Your task to perform on an android device: Search for vegetarian restaurants on Maps Image 0: 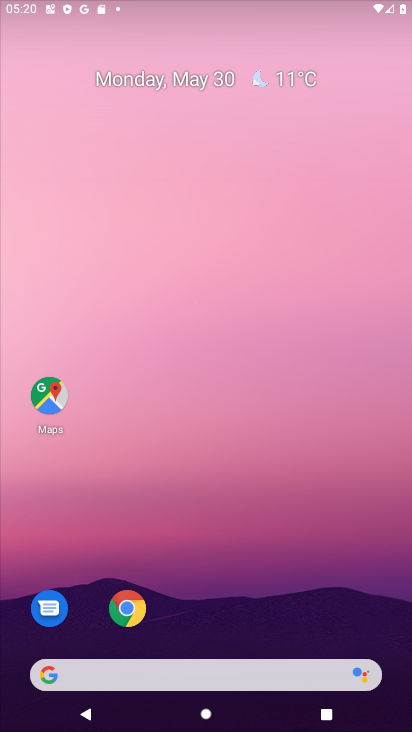
Step 0: drag from (203, 564) to (199, 217)
Your task to perform on an android device: Search for vegetarian restaurants on Maps Image 1: 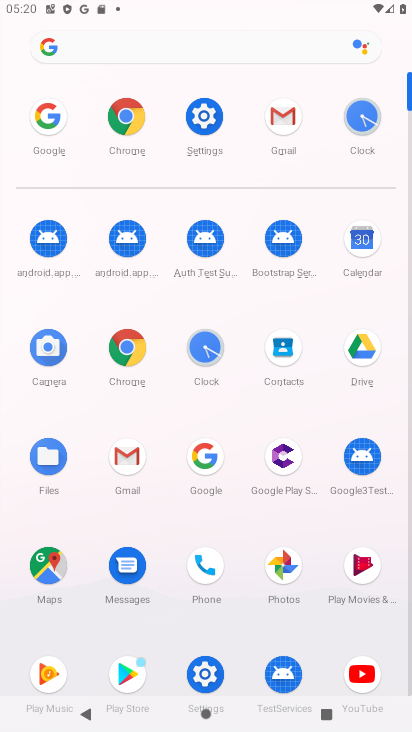
Step 1: click (52, 574)
Your task to perform on an android device: Search for vegetarian restaurants on Maps Image 2: 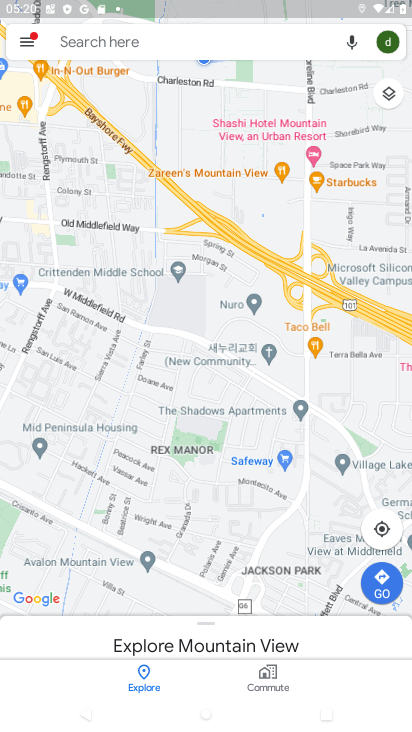
Step 2: click (139, 37)
Your task to perform on an android device: Search for vegetarian restaurants on Maps Image 3: 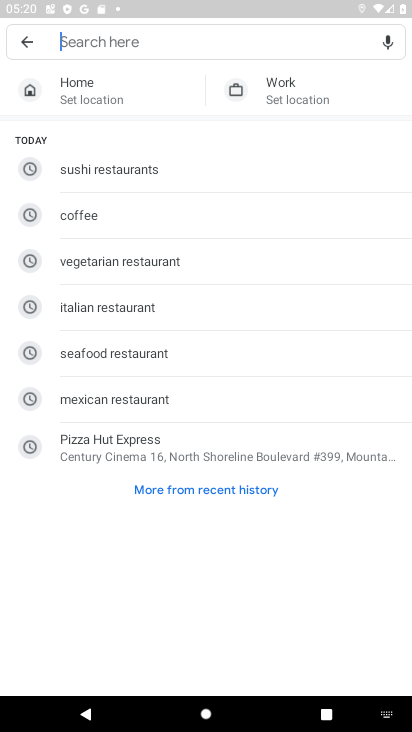
Step 3: click (88, 262)
Your task to perform on an android device: Search for vegetarian restaurants on Maps Image 4: 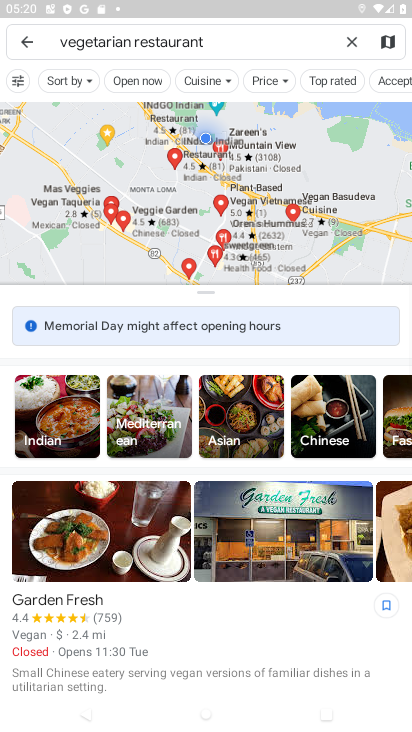
Step 4: task complete